Your task to perform on an android device: Open ESPN.com Image 0: 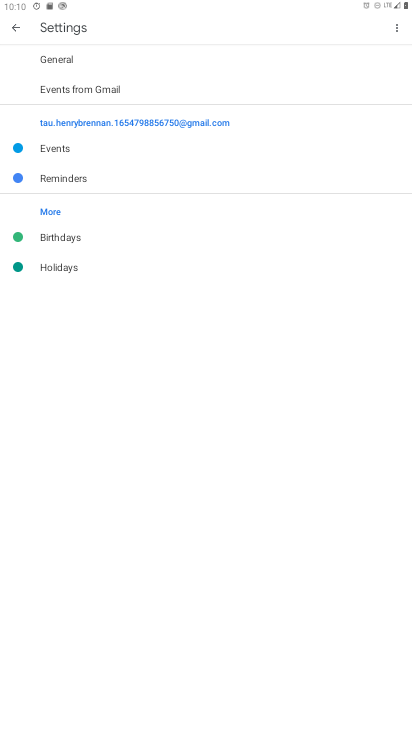
Step 0: press home button
Your task to perform on an android device: Open ESPN.com Image 1: 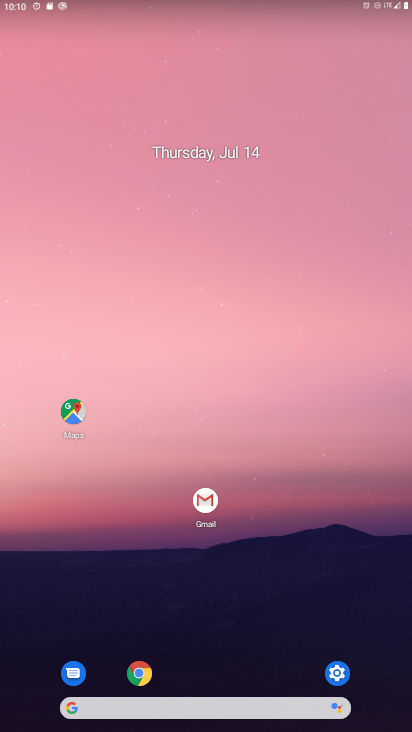
Step 1: click (147, 667)
Your task to perform on an android device: Open ESPN.com Image 2: 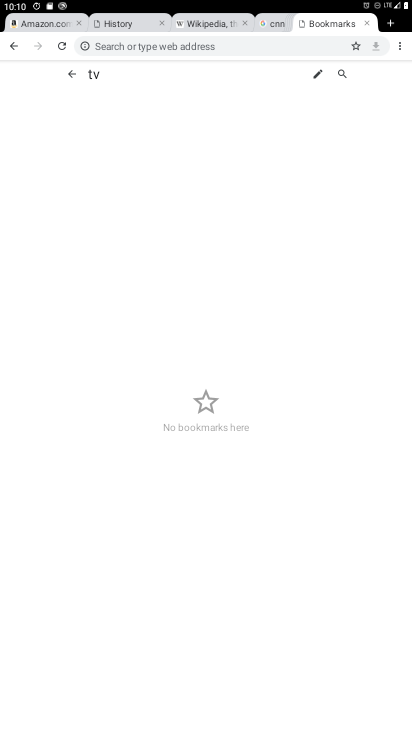
Step 2: click (388, 25)
Your task to perform on an android device: Open ESPN.com Image 3: 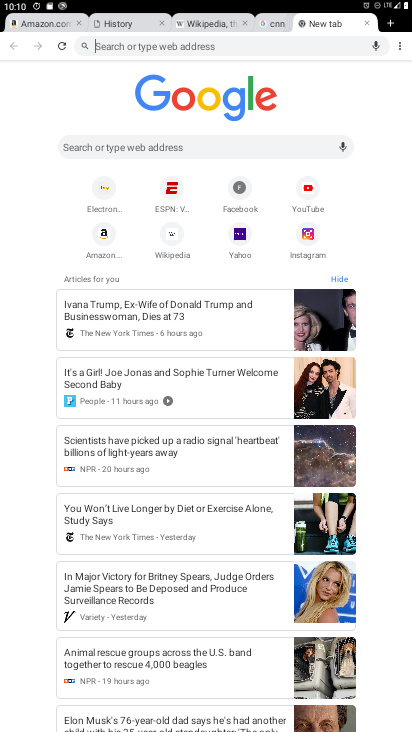
Step 3: click (166, 203)
Your task to perform on an android device: Open ESPN.com Image 4: 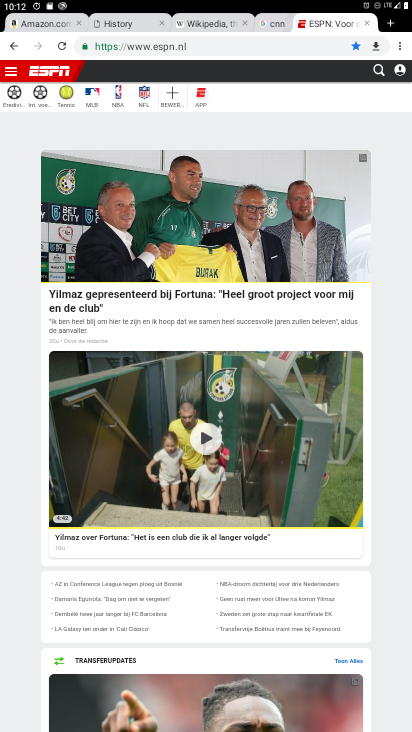
Step 4: task complete